Your task to perform on an android device: What's the weather going to be this weekend? Image 0: 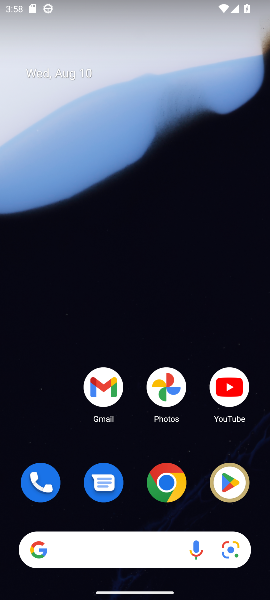
Step 0: drag from (126, 519) to (164, 40)
Your task to perform on an android device: What's the weather going to be this weekend? Image 1: 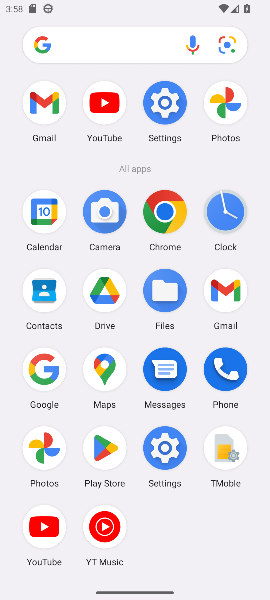
Step 1: click (43, 207)
Your task to perform on an android device: What's the weather going to be this weekend? Image 2: 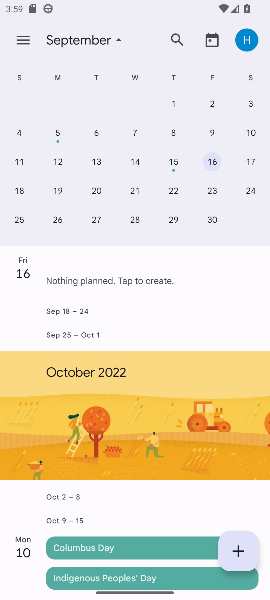
Step 2: drag from (29, 159) to (267, 176)
Your task to perform on an android device: What's the weather going to be this weekend? Image 3: 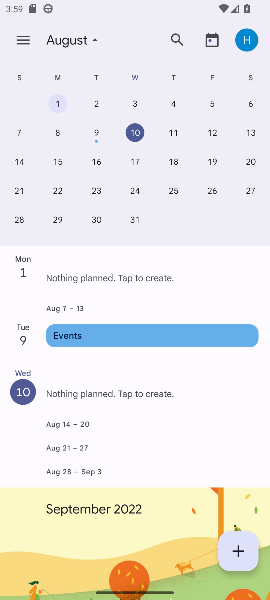
Step 3: click (256, 129)
Your task to perform on an android device: What's the weather going to be this weekend? Image 4: 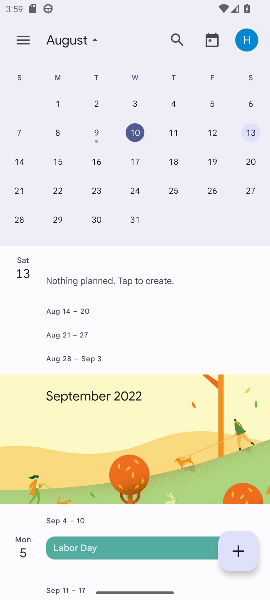
Step 4: click (19, 157)
Your task to perform on an android device: What's the weather going to be this weekend? Image 5: 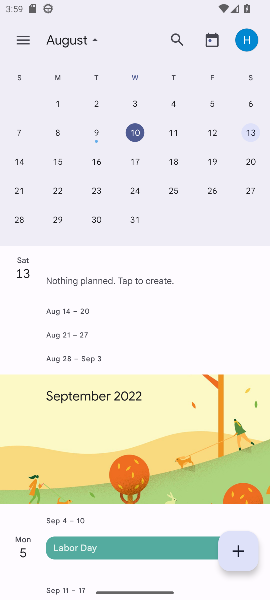
Step 5: task complete